Your task to perform on an android device: turn on wifi Image 0: 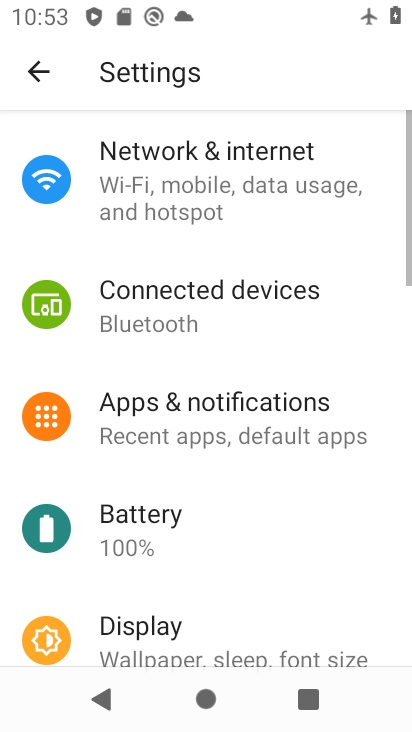
Step 0: press home button
Your task to perform on an android device: turn on wifi Image 1: 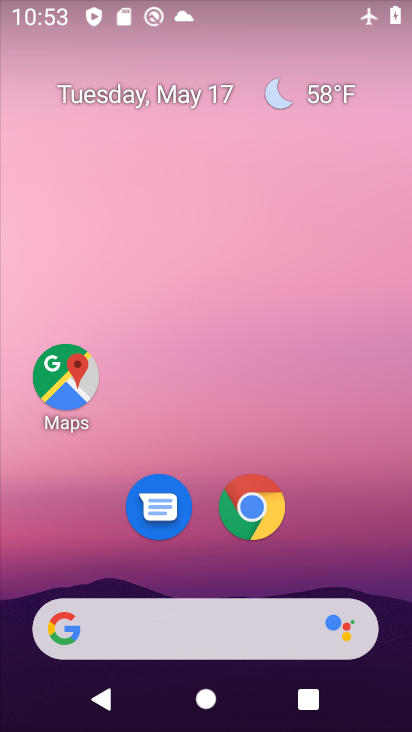
Step 1: drag from (319, 550) to (220, 179)
Your task to perform on an android device: turn on wifi Image 2: 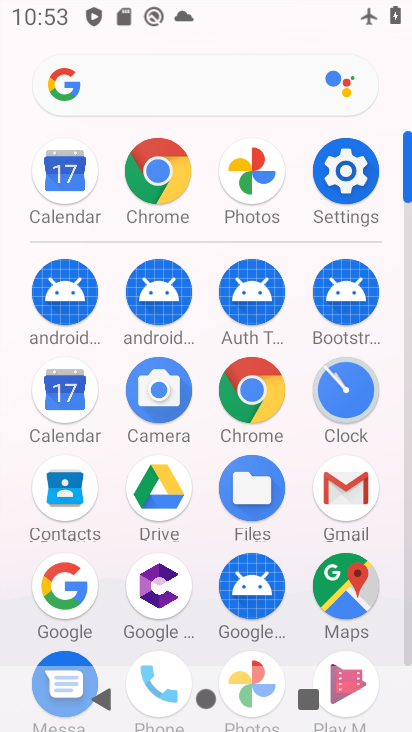
Step 2: click (335, 172)
Your task to perform on an android device: turn on wifi Image 3: 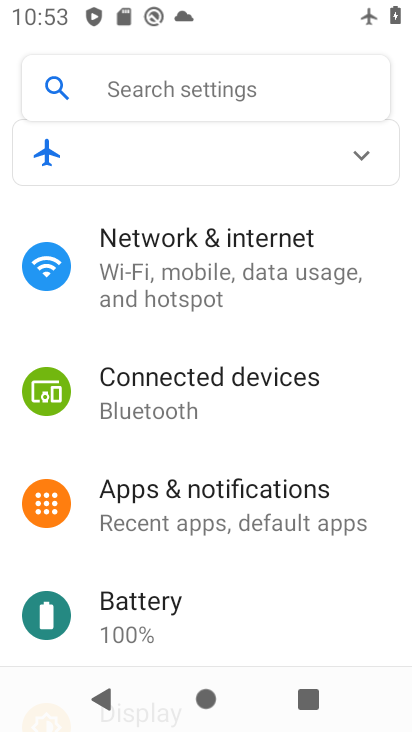
Step 3: click (169, 258)
Your task to perform on an android device: turn on wifi Image 4: 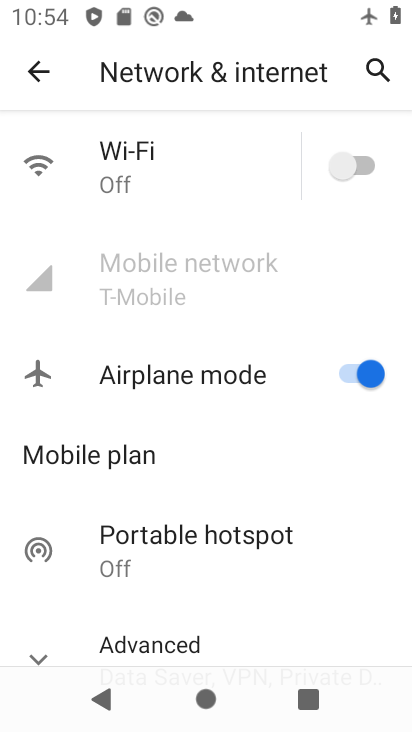
Step 4: click (342, 167)
Your task to perform on an android device: turn on wifi Image 5: 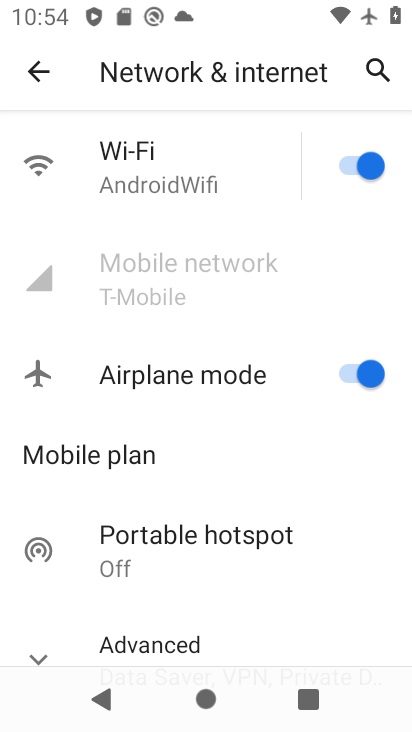
Step 5: task complete